Your task to perform on an android device: turn off wifi Image 0: 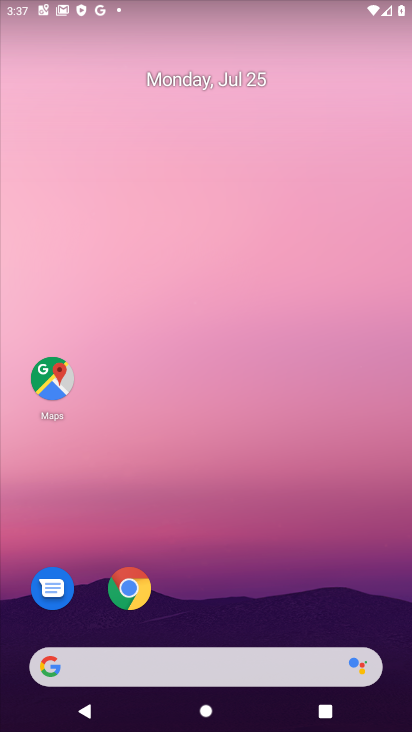
Step 0: drag from (391, 713) to (344, 108)
Your task to perform on an android device: turn off wifi Image 1: 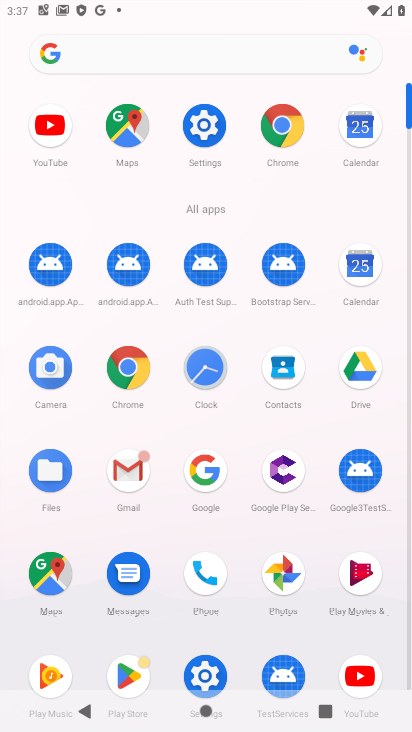
Step 1: click (209, 675)
Your task to perform on an android device: turn off wifi Image 2: 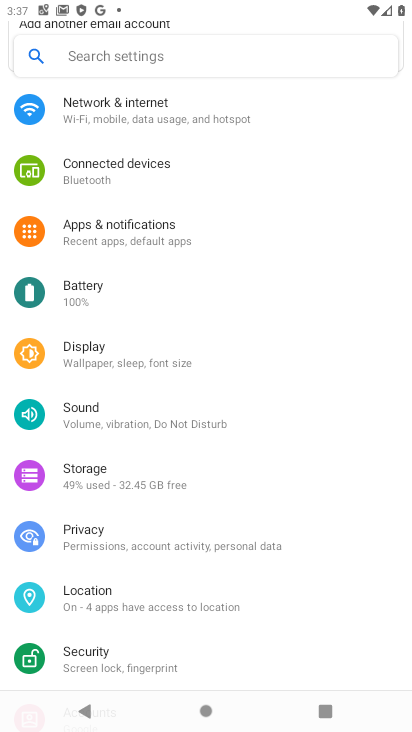
Step 2: click (130, 106)
Your task to perform on an android device: turn off wifi Image 3: 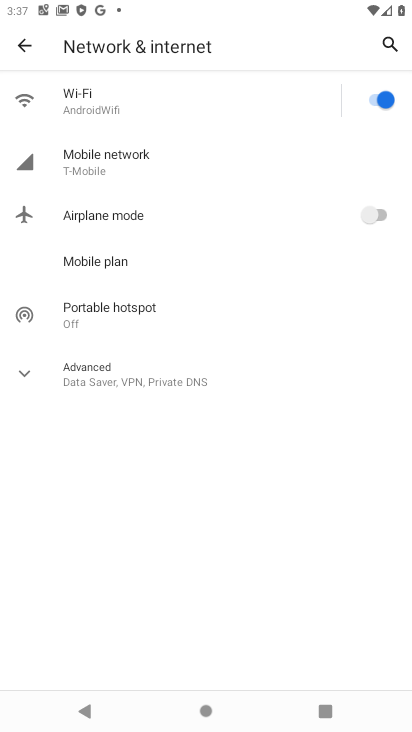
Step 3: click (379, 97)
Your task to perform on an android device: turn off wifi Image 4: 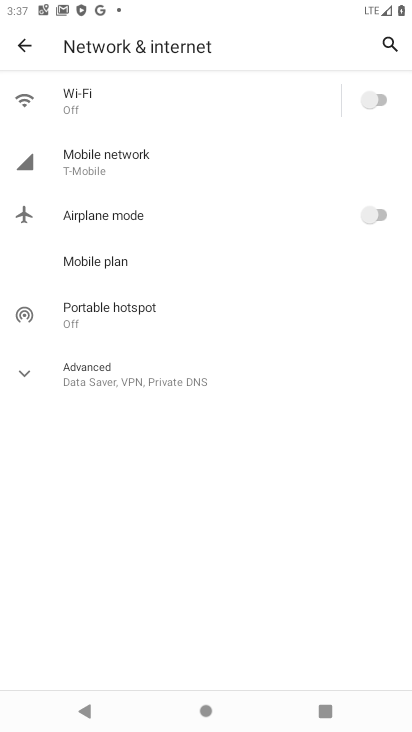
Step 4: task complete